Your task to perform on an android device: Search for pizza restaurants on Maps Image 0: 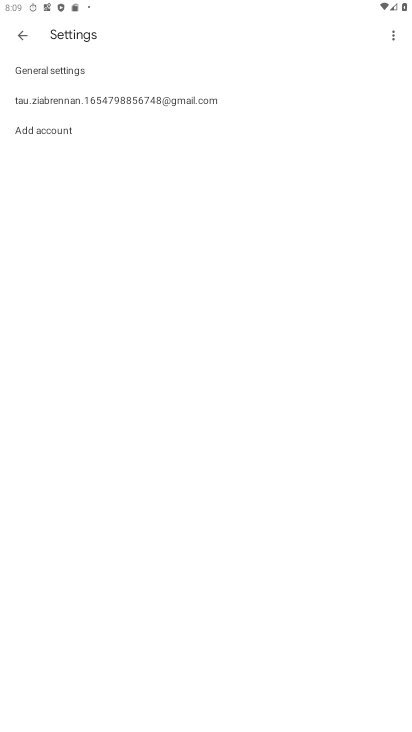
Step 0: press home button
Your task to perform on an android device: Search for pizza restaurants on Maps Image 1: 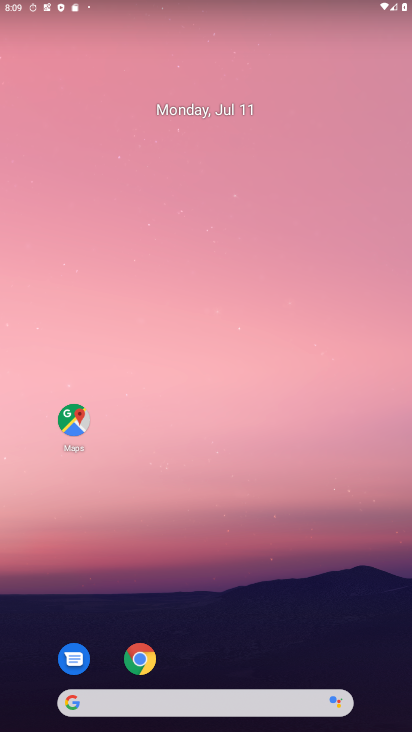
Step 1: drag from (262, 622) to (327, 67)
Your task to perform on an android device: Search for pizza restaurants on Maps Image 2: 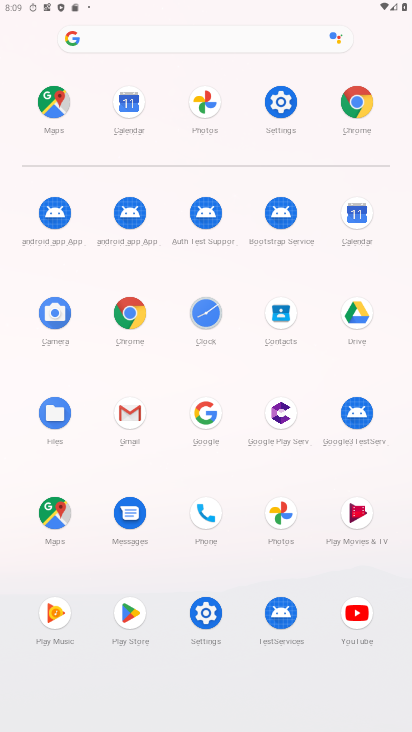
Step 2: click (54, 105)
Your task to perform on an android device: Search for pizza restaurants on Maps Image 3: 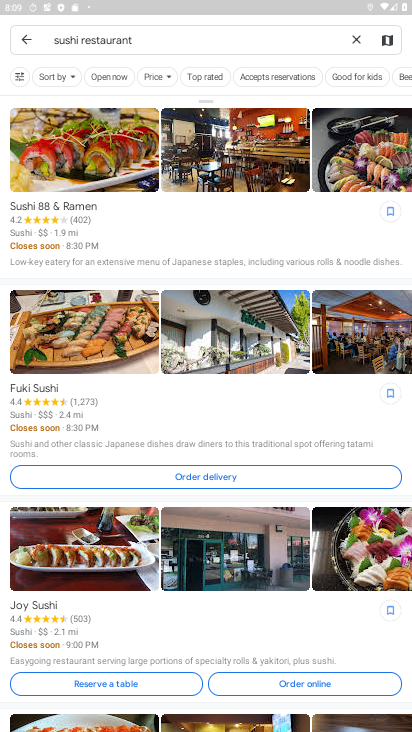
Step 3: click (23, 37)
Your task to perform on an android device: Search for pizza restaurants on Maps Image 4: 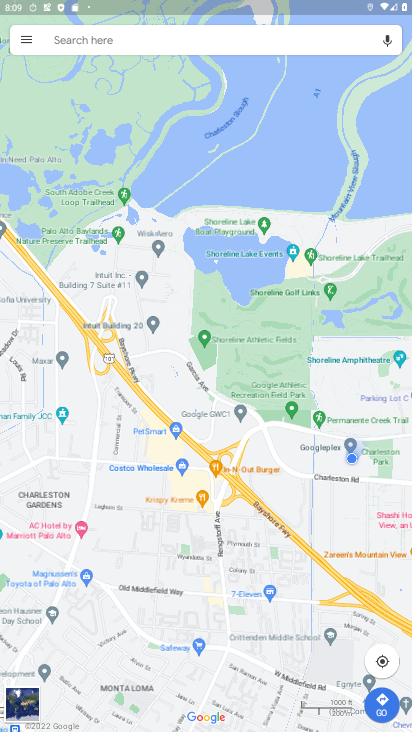
Step 4: click (177, 35)
Your task to perform on an android device: Search for pizza restaurants on Maps Image 5: 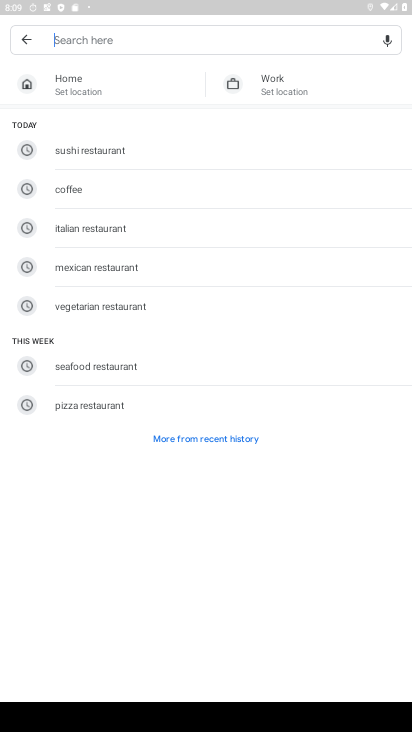
Step 5: click (87, 403)
Your task to perform on an android device: Search for pizza restaurants on Maps Image 6: 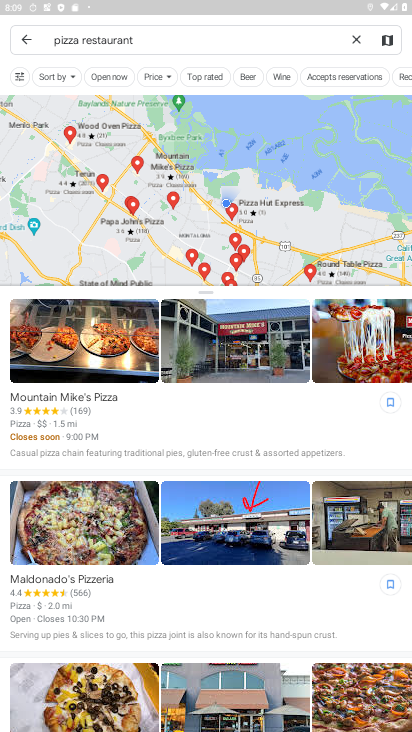
Step 6: task complete